Your task to perform on an android device: toggle airplane mode Image 0: 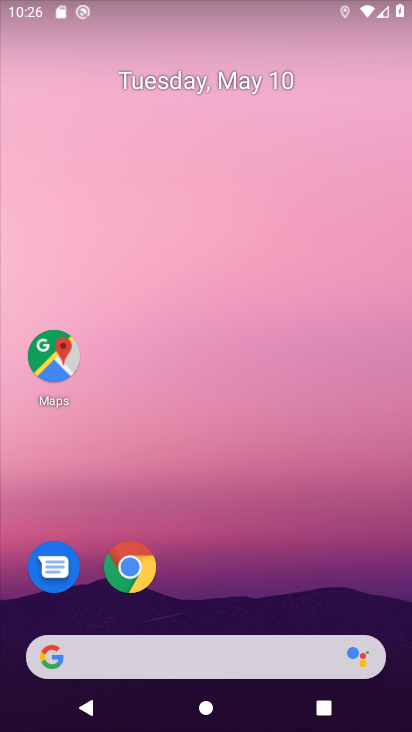
Step 0: drag from (189, 498) to (233, 58)
Your task to perform on an android device: toggle airplane mode Image 1: 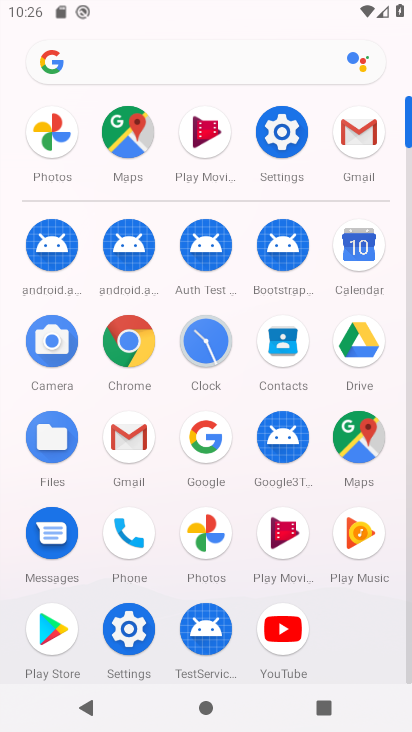
Step 1: click (291, 125)
Your task to perform on an android device: toggle airplane mode Image 2: 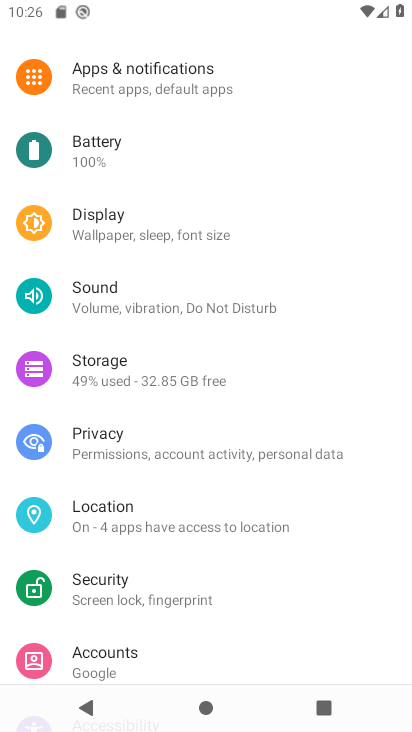
Step 2: drag from (165, 110) to (155, 516)
Your task to perform on an android device: toggle airplane mode Image 3: 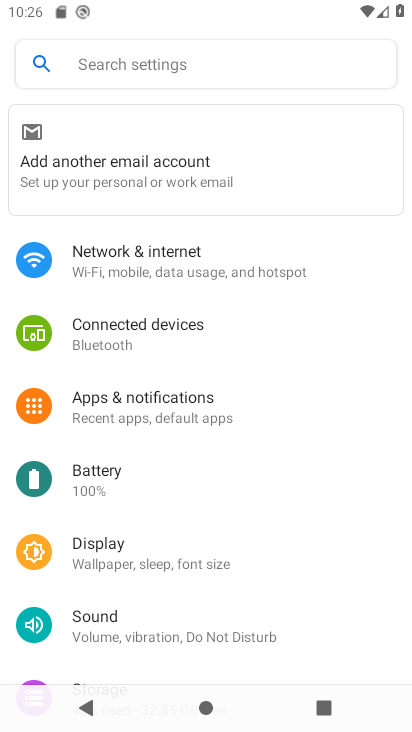
Step 3: click (175, 260)
Your task to perform on an android device: toggle airplane mode Image 4: 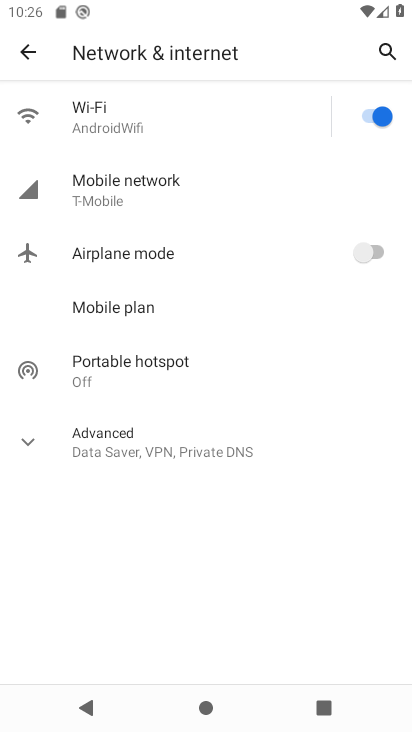
Step 4: click (369, 255)
Your task to perform on an android device: toggle airplane mode Image 5: 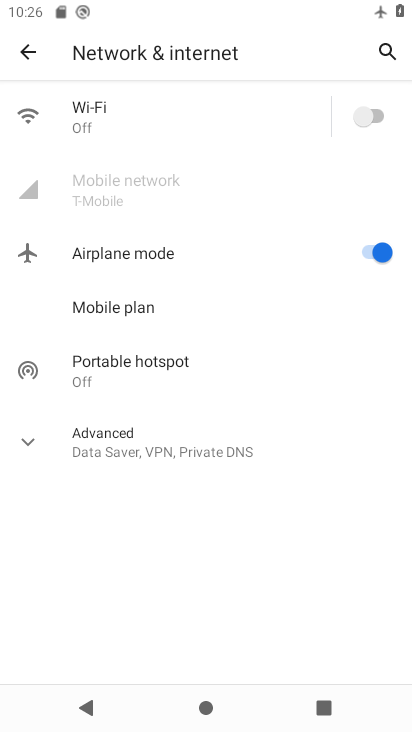
Step 5: task complete